Your task to perform on an android device: Search for vegetarian restaurants on Maps Image 0: 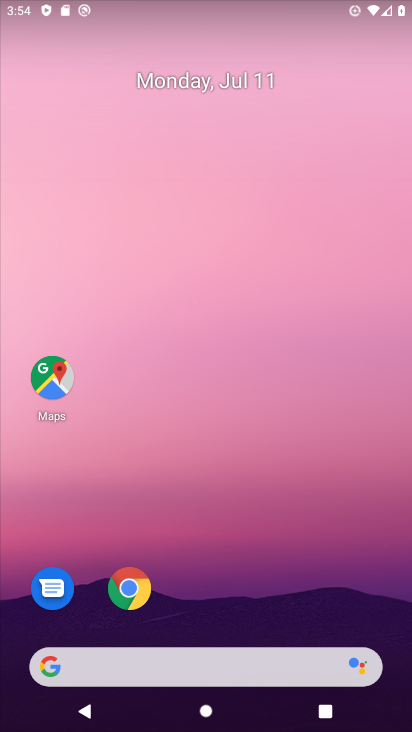
Step 0: drag from (317, 594) to (247, 77)
Your task to perform on an android device: Search for vegetarian restaurants on Maps Image 1: 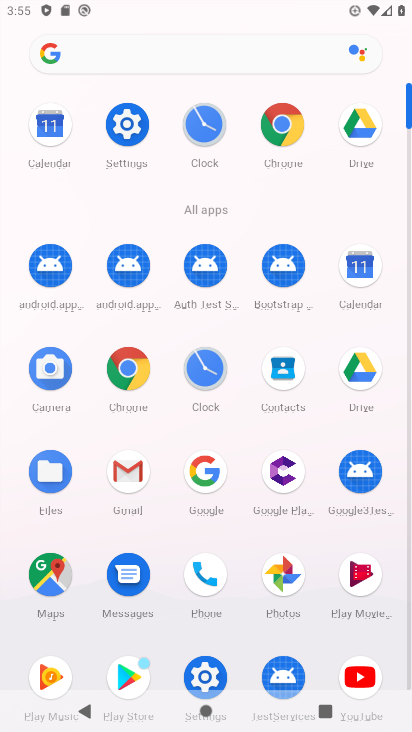
Step 1: click (45, 574)
Your task to perform on an android device: Search for vegetarian restaurants on Maps Image 2: 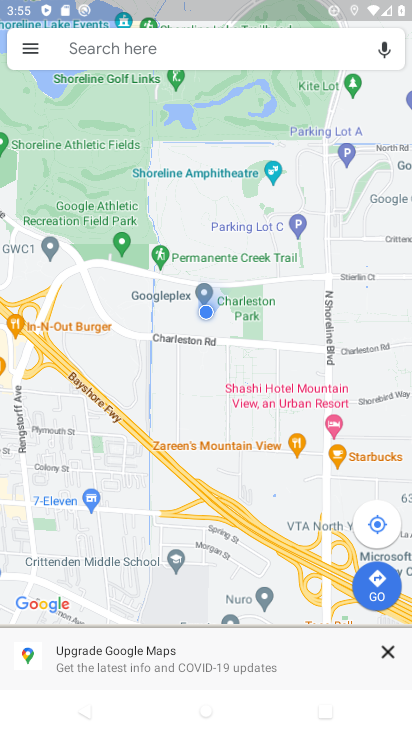
Step 2: click (187, 53)
Your task to perform on an android device: Search for vegetarian restaurants on Maps Image 3: 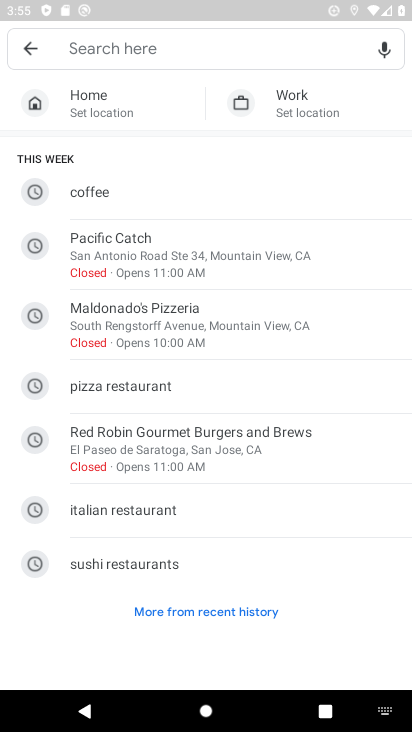
Step 3: type "vegetarian resturents"
Your task to perform on an android device: Search for vegetarian restaurants on Maps Image 4: 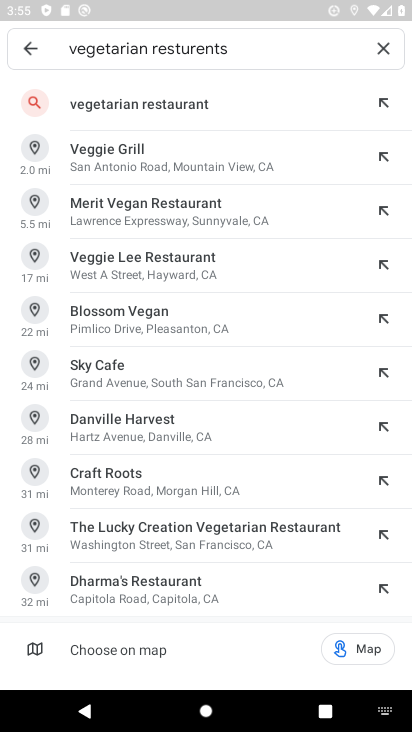
Step 4: click (192, 111)
Your task to perform on an android device: Search for vegetarian restaurants on Maps Image 5: 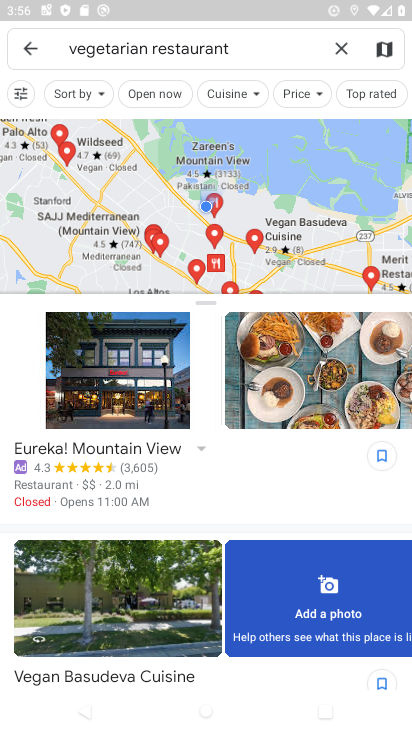
Step 5: task complete